Your task to perform on an android device: turn off translation in the chrome app Image 0: 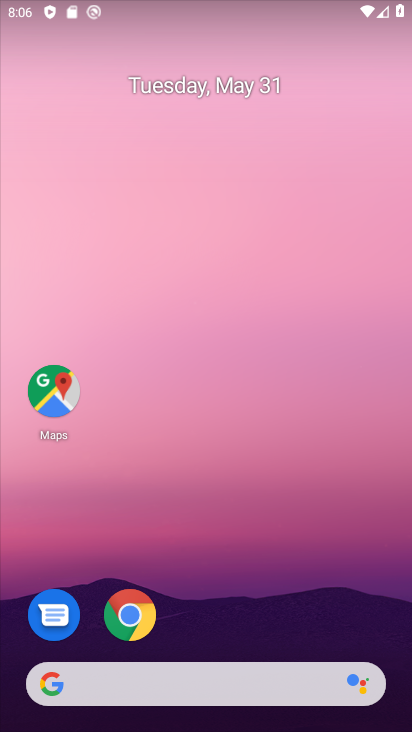
Step 0: click (131, 614)
Your task to perform on an android device: turn off translation in the chrome app Image 1: 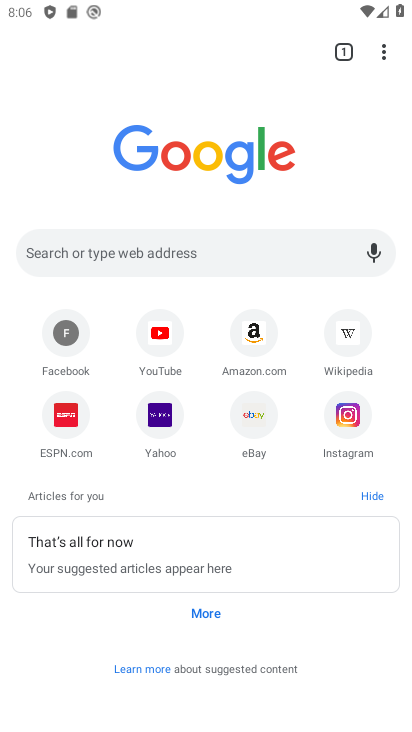
Step 1: click (383, 55)
Your task to perform on an android device: turn off translation in the chrome app Image 2: 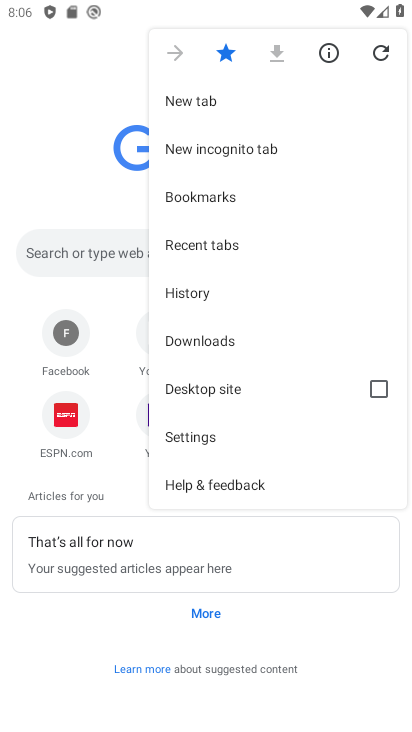
Step 2: click (205, 439)
Your task to perform on an android device: turn off translation in the chrome app Image 3: 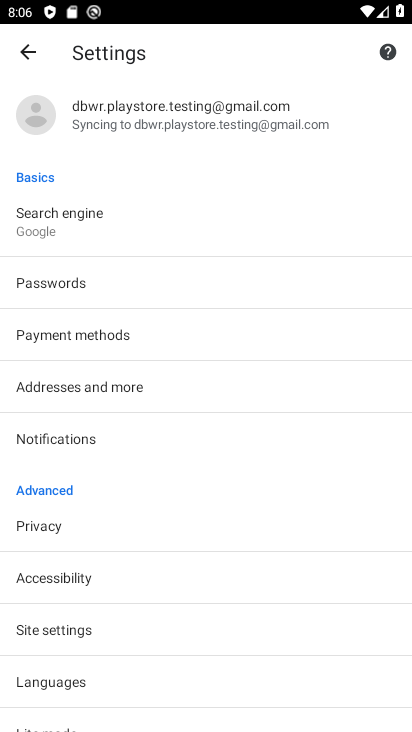
Step 3: drag from (185, 625) to (187, 390)
Your task to perform on an android device: turn off translation in the chrome app Image 4: 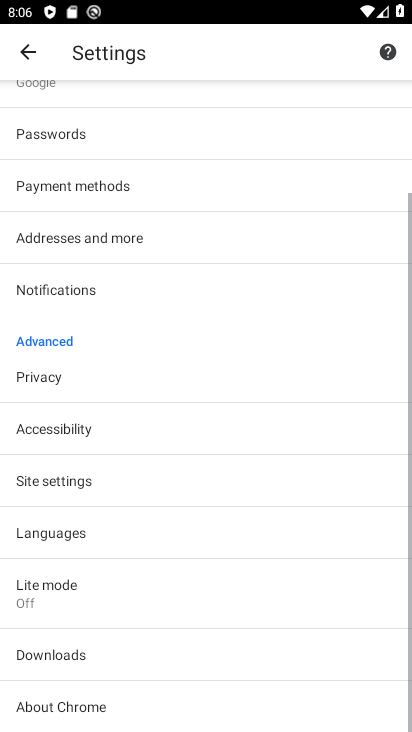
Step 4: click (61, 530)
Your task to perform on an android device: turn off translation in the chrome app Image 5: 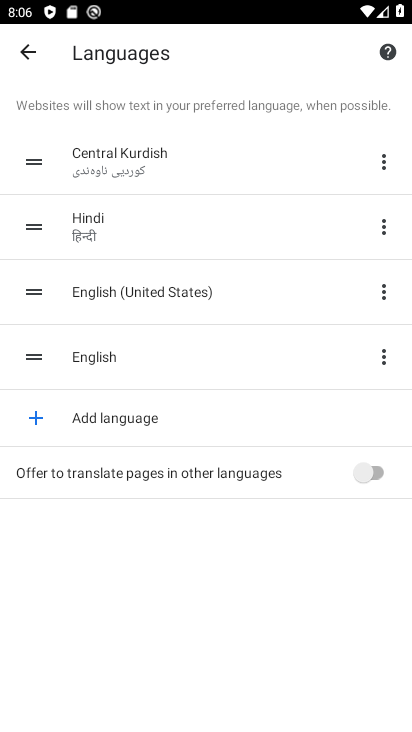
Step 5: task complete